Your task to perform on an android device: Go to accessibility settings Image 0: 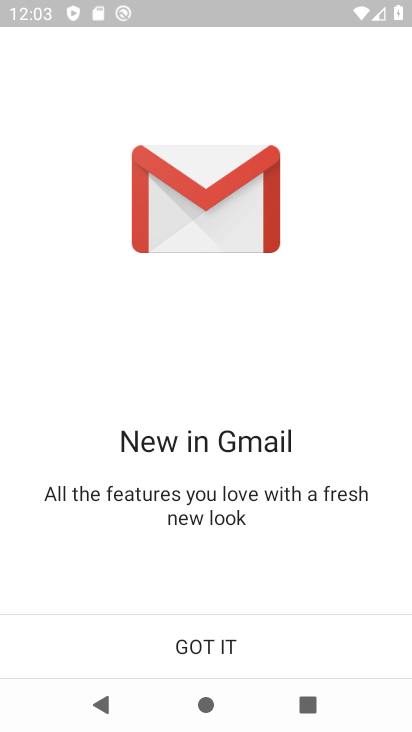
Step 0: click (195, 637)
Your task to perform on an android device: Go to accessibility settings Image 1: 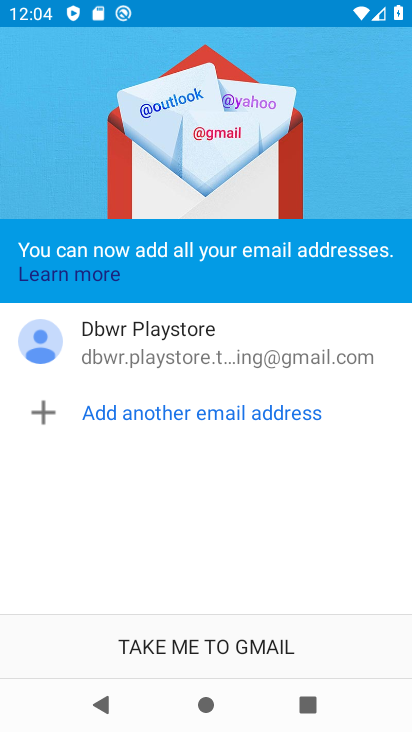
Step 1: click (127, 646)
Your task to perform on an android device: Go to accessibility settings Image 2: 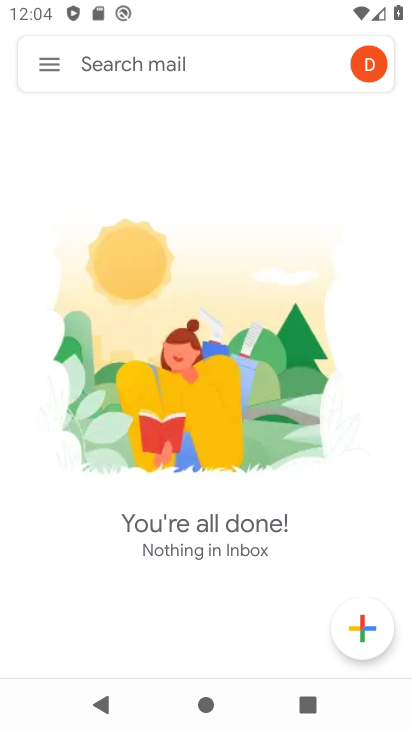
Step 2: press home button
Your task to perform on an android device: Go to accessibility settings Image 3: 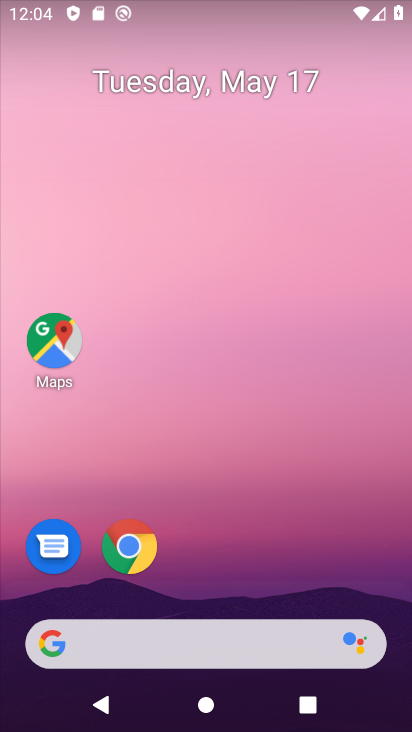
Step 3: drag from (311, 494) to (277, 45)
Your task to perform on an android device: Go to accessibility settings Image 4: 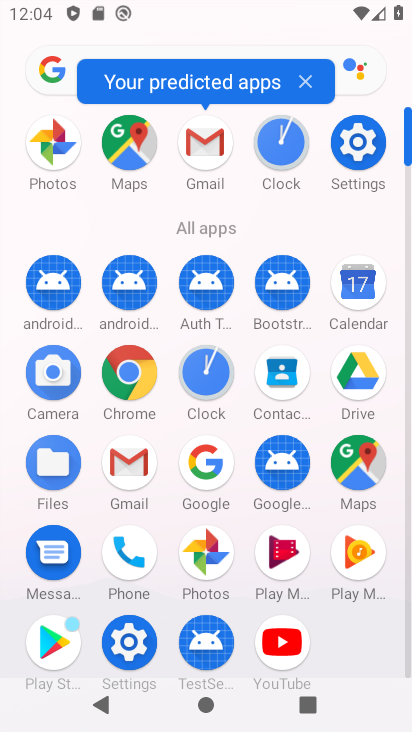
Step 4: click (354, 152)
Your task to perform on an android device: Go to accessibility settings Image 5: 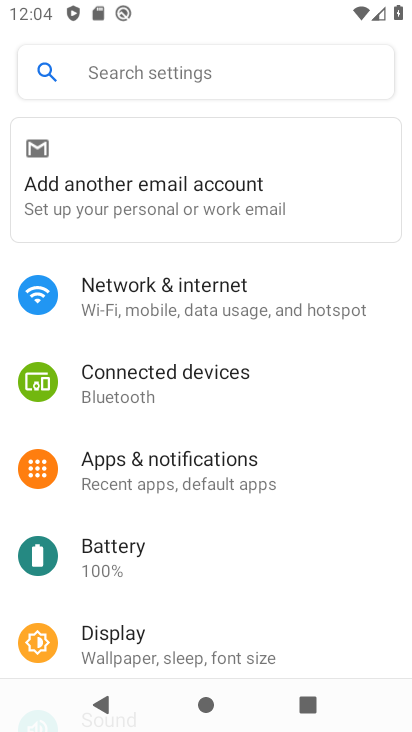
Step 5: drag from (184, 565) to (198, 227)
Your task to perform on an android device: Go to accessibility settings Image 6: 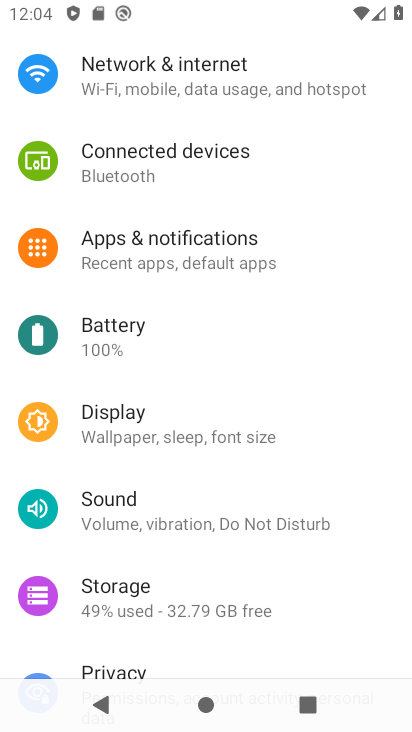
Step 6: drag from (214, 556) to (223, 207)
Your task to perform on an android device: Go to accessibility settings Image 7: 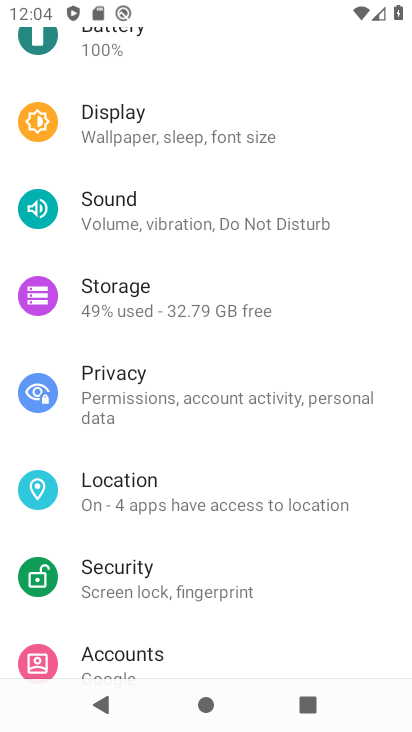
Step 7: drag from (185, 528) to (188, 164)
Your task to perform on an android device: Go to accessibility settings Image 8: 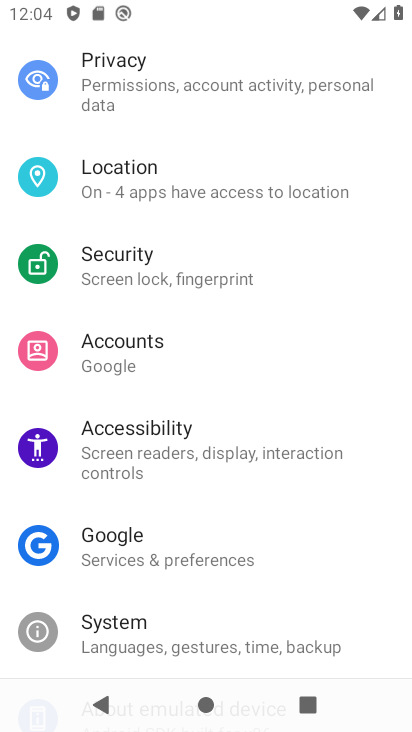
Step 8: click (136, 420)
Your task to perform on an android device: Go to accessibility settings Image 9: 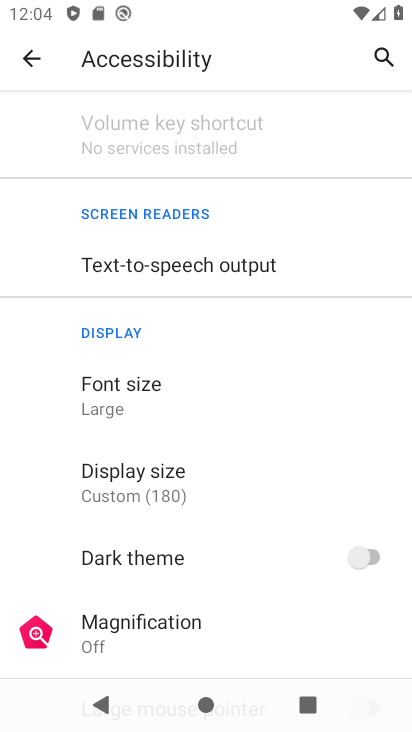
Step 9: task complete